Your task to perform on an android device: Turn on the flashlight Image 0: 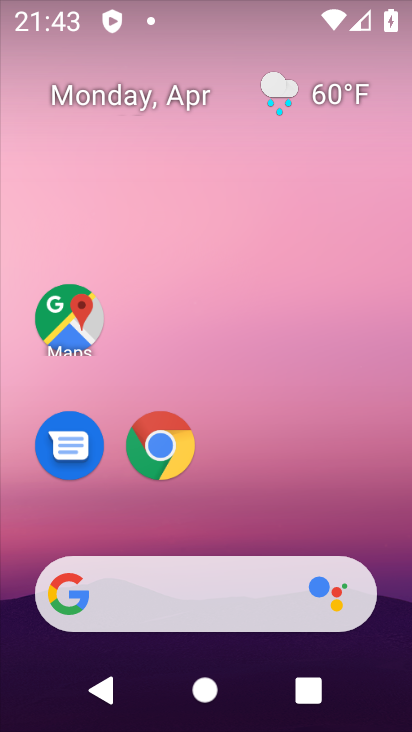
Step 0: task impossible